Your task to perform on an android device: Open Google Maps Image 0: 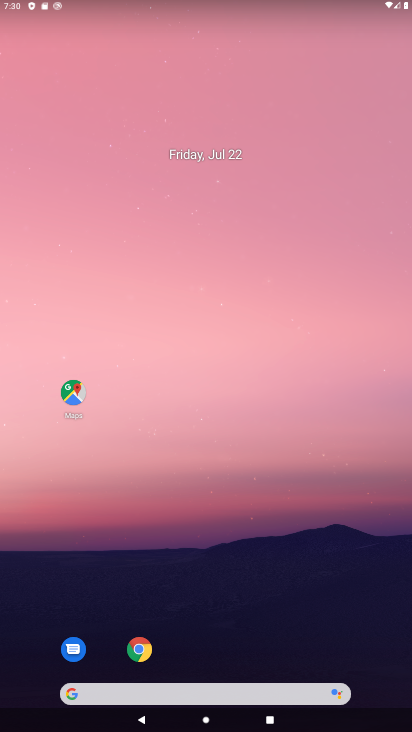
Step 0: click (66, 393)
Your task to perform on an android device: Open Google Maps Image 1: 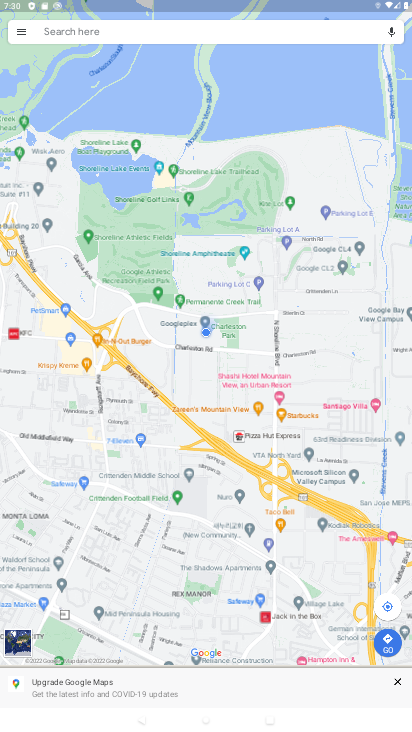
Step 1: task complete